Your task to perform on an android device: Open the map Image 0: 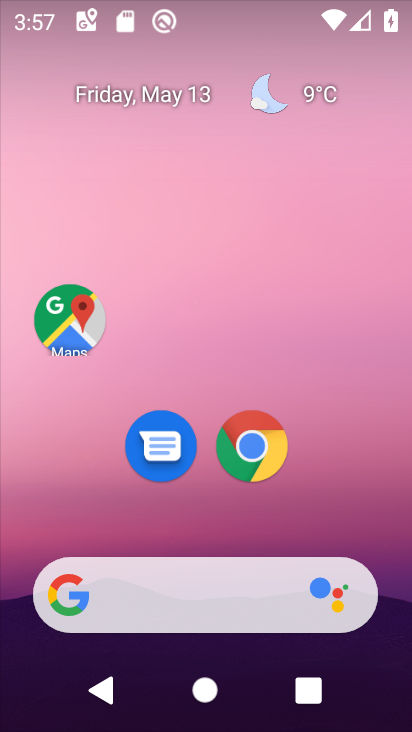
Step 0: click (55, 319)
Your task to perform on an android device: Open the map Image 1: 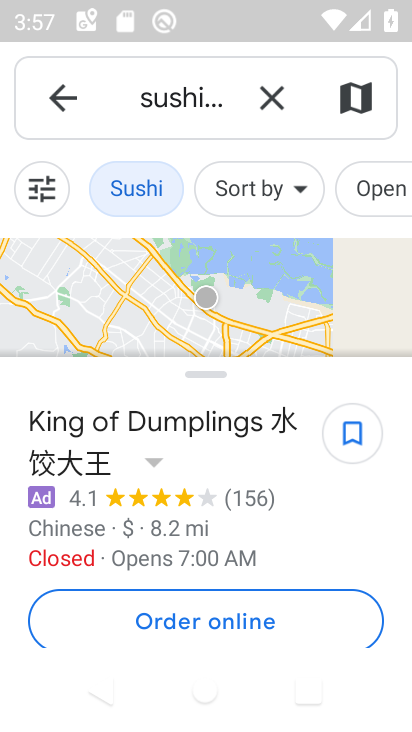
Step 1: click (72, 103)
Your task to perform on an android device: Open the map Image 2: 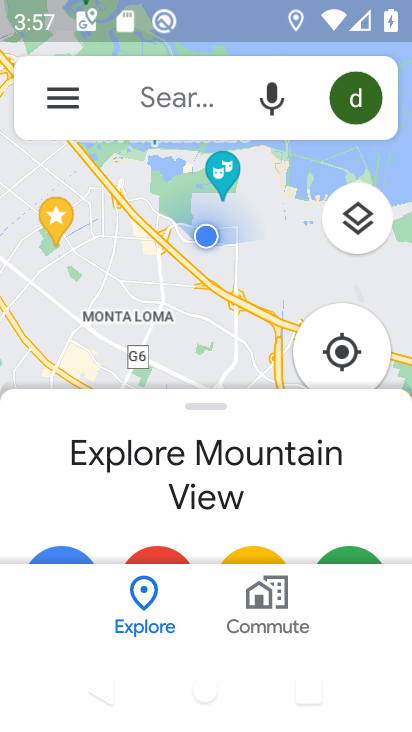
Step 2: task complete